Your task to perform on an android device: delete location history Image 0: 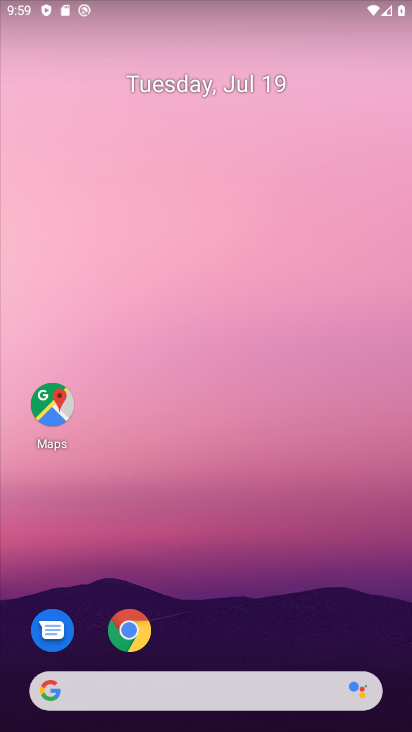
Step 0: drag from (186, 438) to (193, 132)
Your task to perform on an android device: delete location history Image 1: 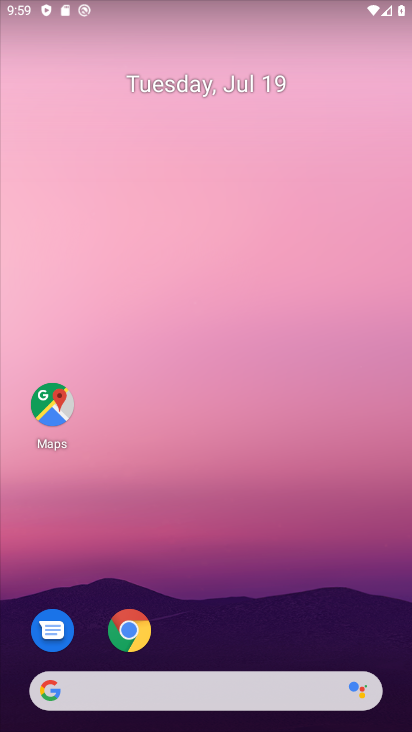
Step 1: drag from (246, 465) to (248, 109)
Your task to perform on an android device: delete location history Image 2: 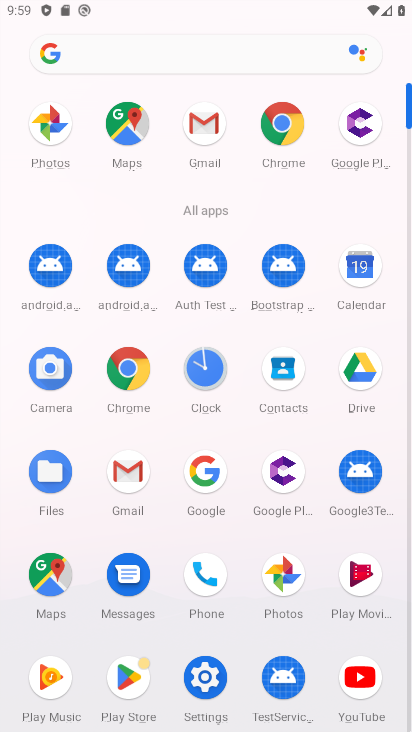
Step 2: click (201, 678)
Your task to perform on an android device: delete location history Image 3: 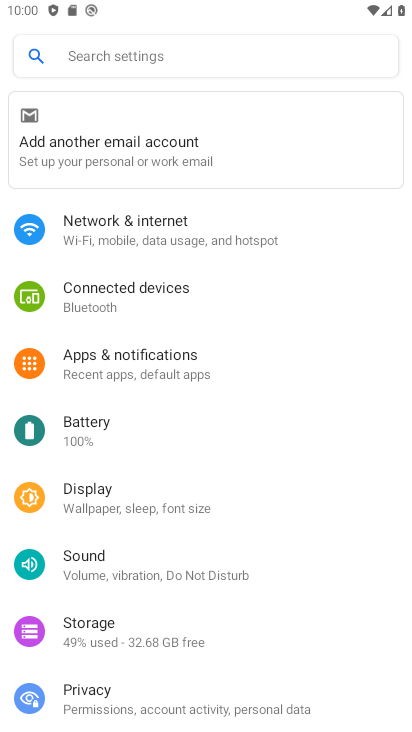
Step 3: drag from (128, 694) to (127, 362)
Your task to perform on an android device: delete location history Image 4: 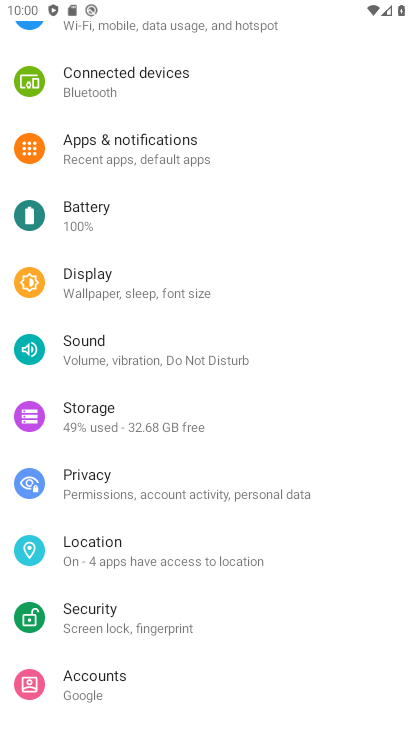
Step 4: click (79, 565)
Your task to perform on an android device: delete location history Image 5: 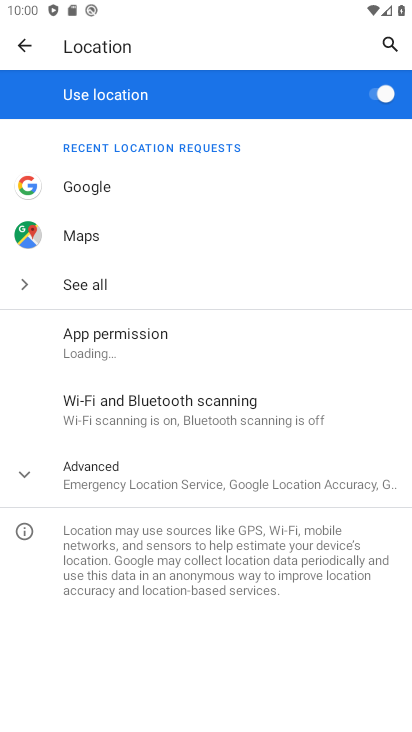
Step 5: click (91, 481)
Your task to perform on an android device: delete location history Image 6: 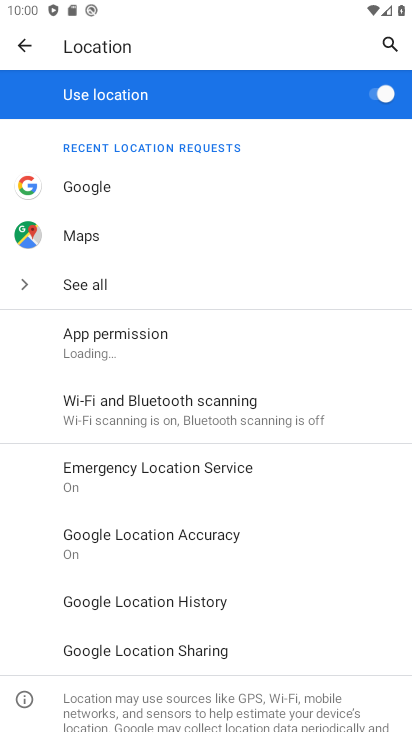
Step 6: click (157, 603)
Your task to perform on an android device: delete location history Image 7: 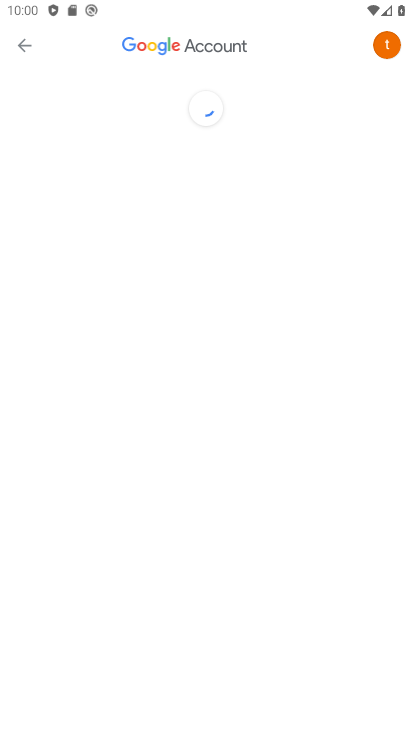
Step 7: click (244, 419)
Your task to perform on an android device: delete location history Image 8: 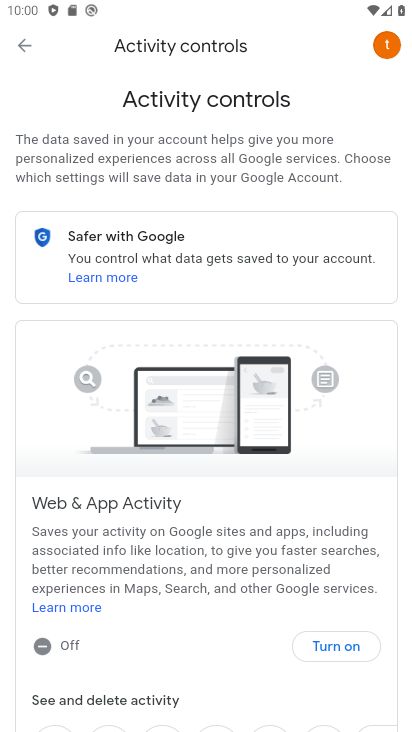
Step 8: drag from (286, 682) to (235, 335)
Your task to perform on an android device: delete location history Image 9: 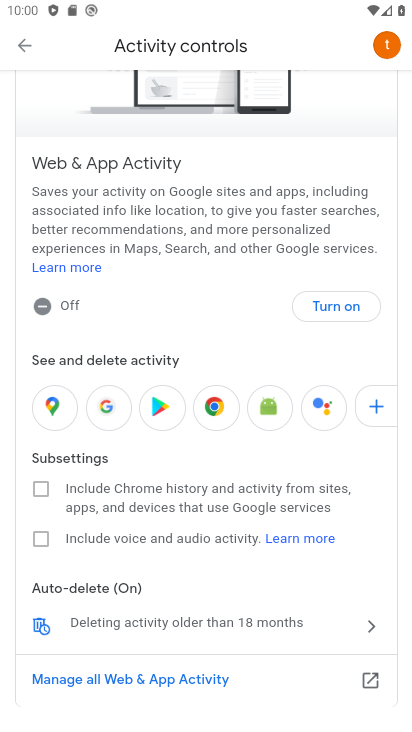
Step 9: click (111, 623)
Your task to perform on an android device: delete location history Image 10: 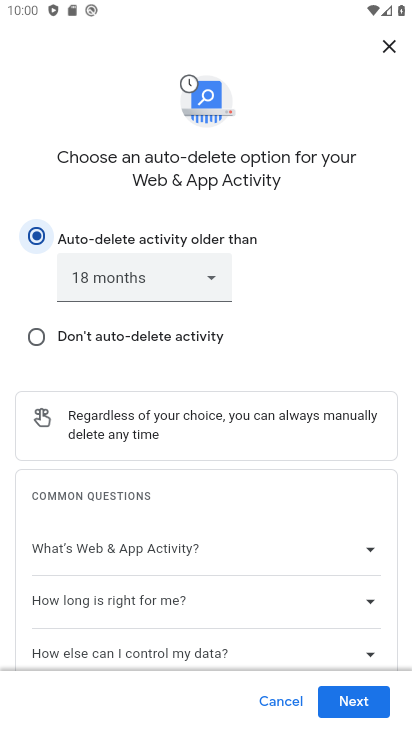
Step 10: click (345, 697)
Your task to perform on an android device: delete location history Image 11: 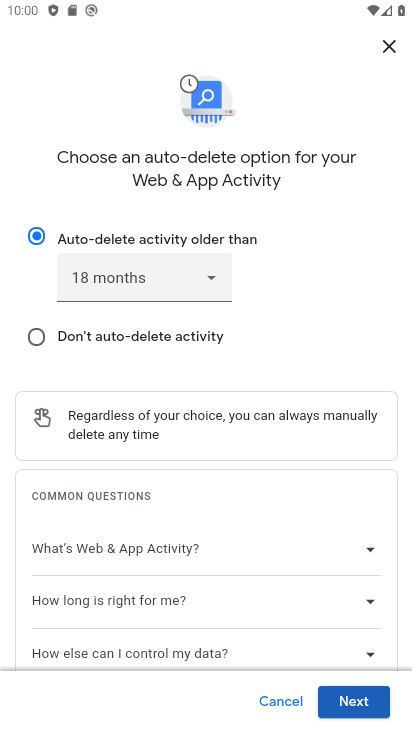
Step 11: click (347, 702)
Your task to perform on an android device: delete location history Image 12: 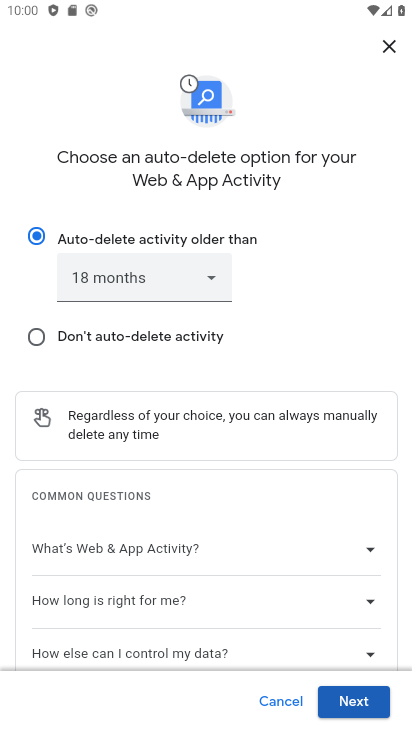
Step 12: click (355, 697)
Your task to perform on an android device: delete location history Image 13: 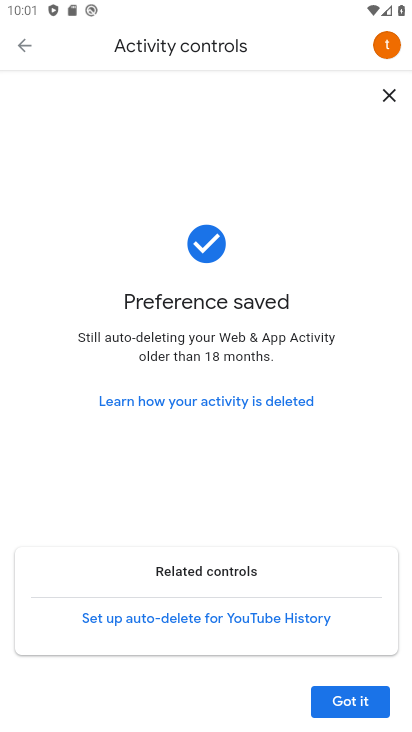
Step 13: click (351, 698)
Your task to perform on an android device: delete location history Image 14: 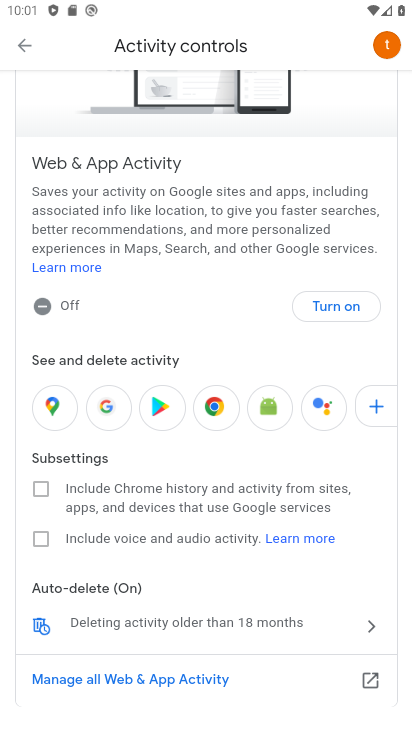
Step 14: task complete